Your task to perform on an android device: turn notification dots on Image 0: 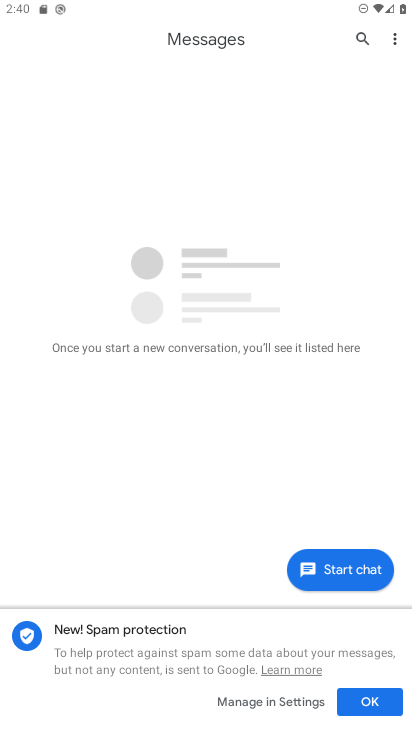
Step 0: press home button
Your task to perform on an android device: turn notification dots on Image 1: 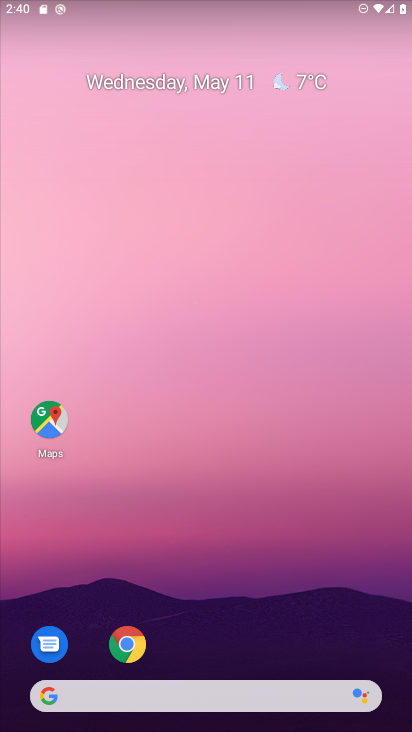
Step 1: drag from (200, 368) to (248, 43)
Your task to perform on an android device: turn notification dots on Image 2: 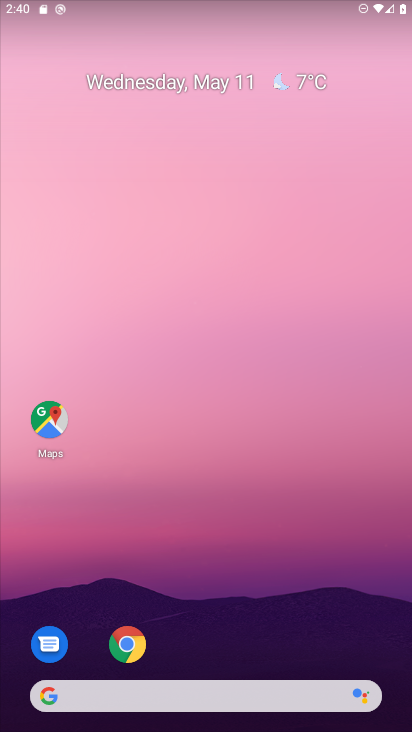
Step 2: drag from (190, 484) to (230, 2)
Your task to perform on an android device: turn notification dots on Image 3: 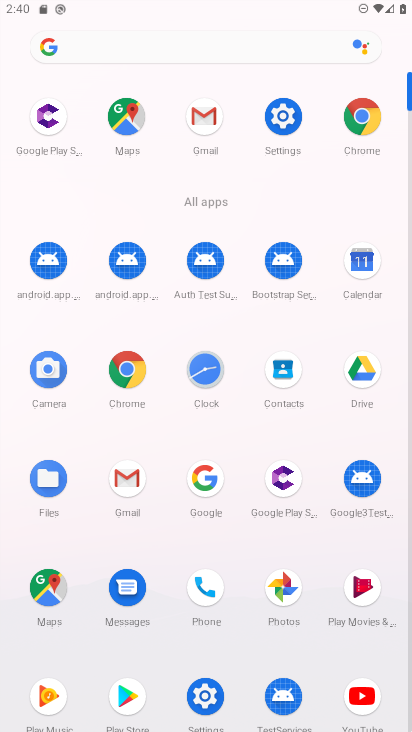
Step 3: click (274, 123)
Your task to perform on an android device: turn notification dots on Image 4: 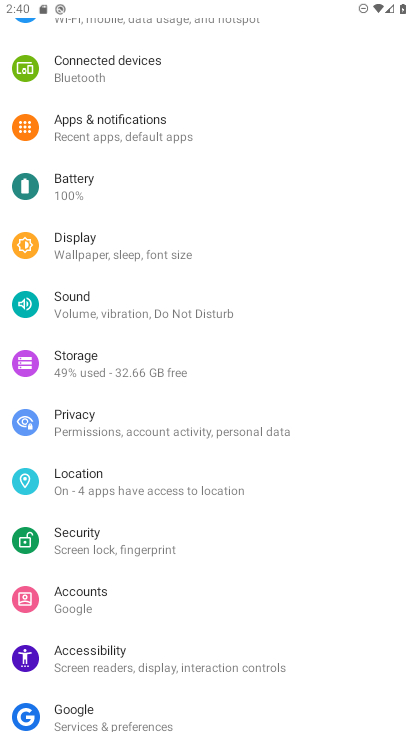
Step 4: click (150, 142)
Your task to perform on an android device: turn notification dots on Image 5: 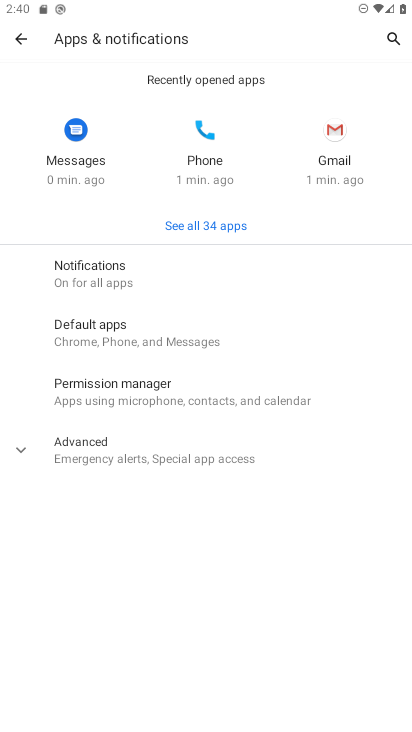
Step 5: click (152, 277)
Your task to perform on an android device: turn notification dots on Image 6: 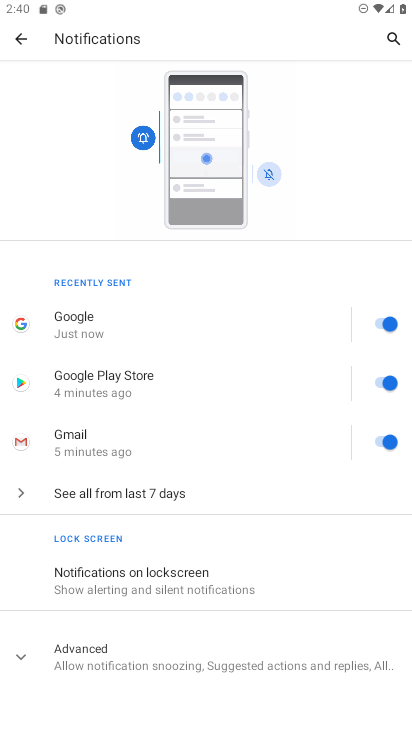
Step 6: click (111, 648)
Your task to perform on an android device: turn notification dots on Image 7: 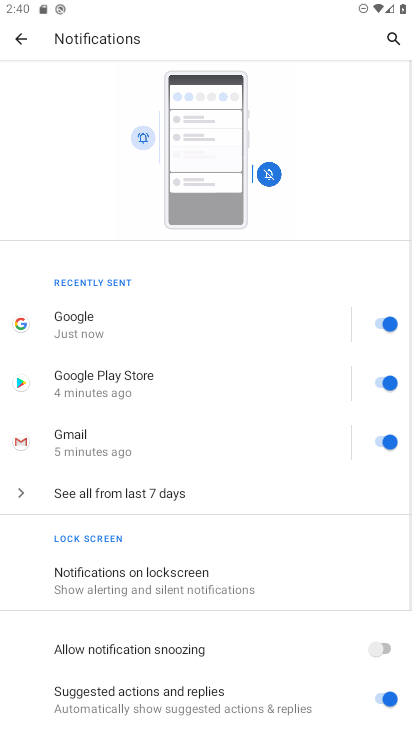
Step 7: task complete